Your task to perform on an android device: Find coffee shops on Maps Image 0: 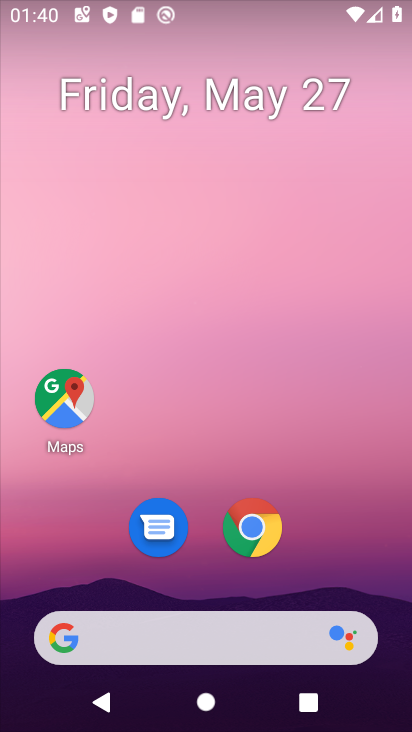
Step 0: click (61, 395)
Your task to perform on an android device: Find coffee shops on Maps Image 1: 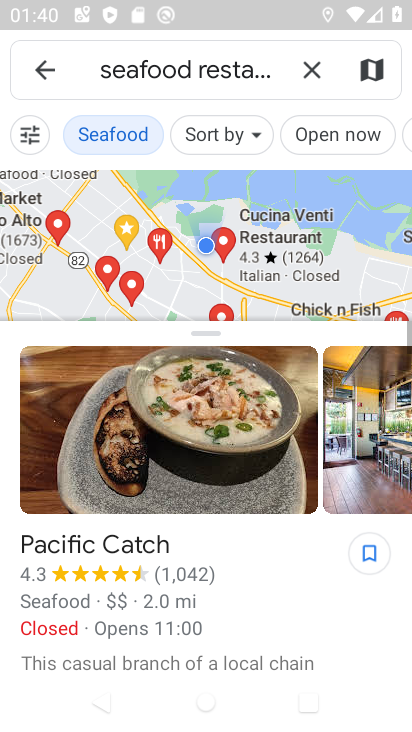
Step 1: click (308, 62)
Your task to perform on an android device: Find coffee shops on Maps Image 2: 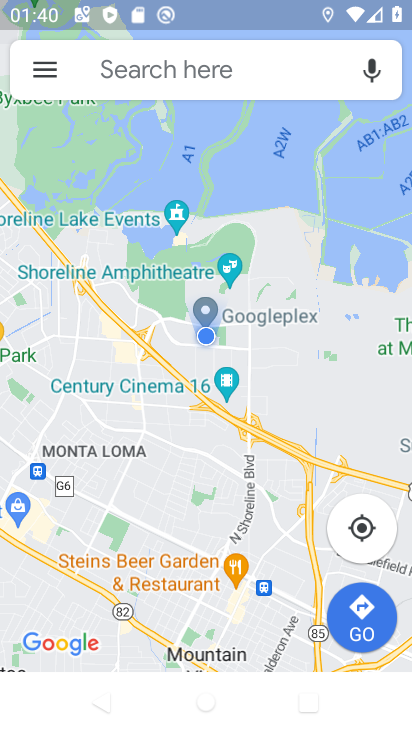
Step 2: type "coffee shops"
Your task to perform on an android device: Find coffee shops on Maps Image 3: 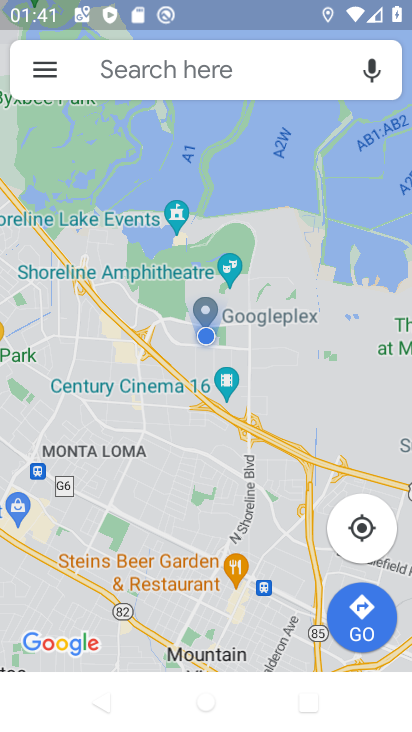
Step 3: click (159, 76)
Your task to perform on an android device: Find coffee shops on Maps Image 4: 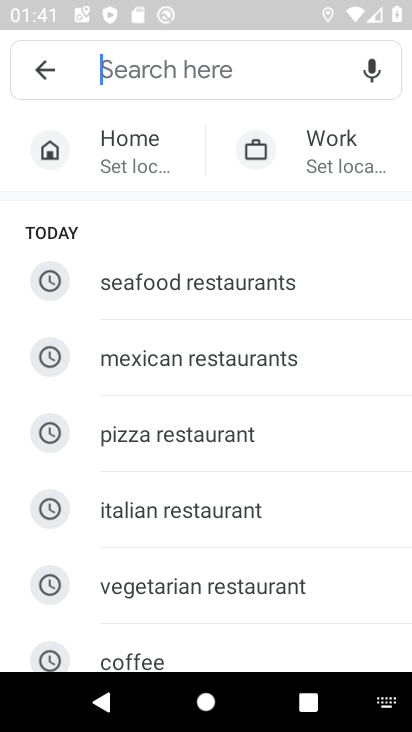
Step 4: click (186, 69)
Your task to perform on an android device: Find coffee shops on Maps Image 5: 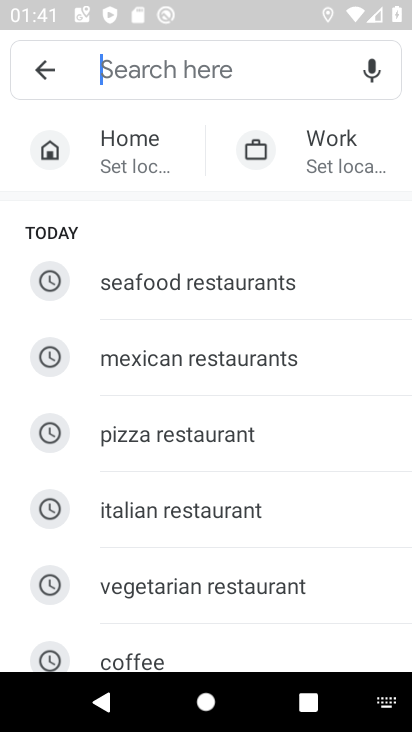
Step 5: type "coffee shops"
Your task to perform on an android device: Find coffee shops on Maps Image 6: 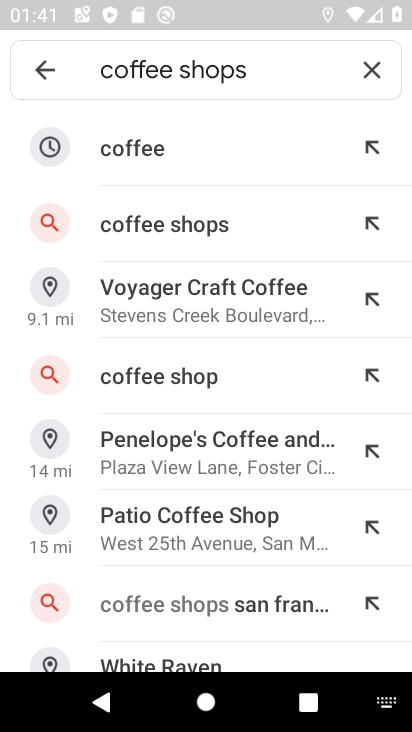
Step 6: click (204, 226)
Your task to perform on an android device: Find coffee shops on Maps Image 7: 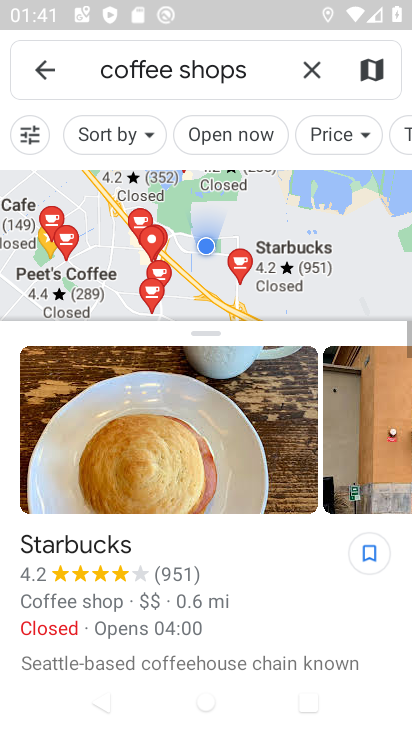
Step 7: task complete